Your task to perform on an android device: Go to accessibility settings Image 0: 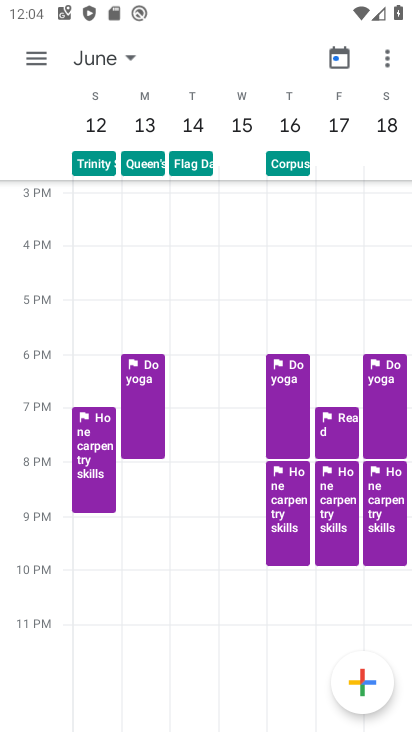
Step 0: press home button
Your task to perform on an android device: Go to accessibility settings Image 1: 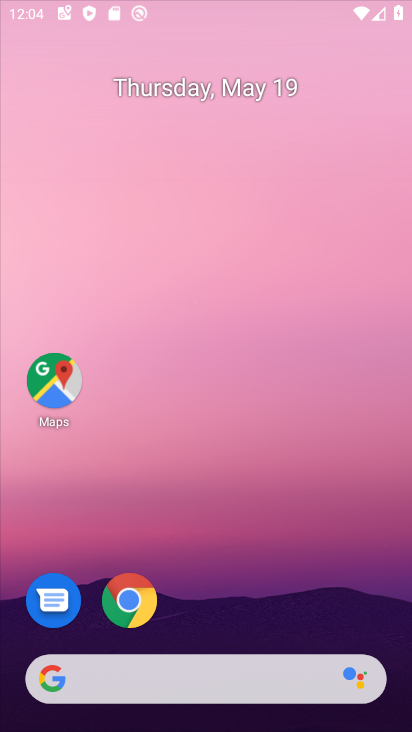
Step 1: drag from (294, 585) to (232, 54)
Your task to perform on an android device: Go to accessibility settings Image 2: 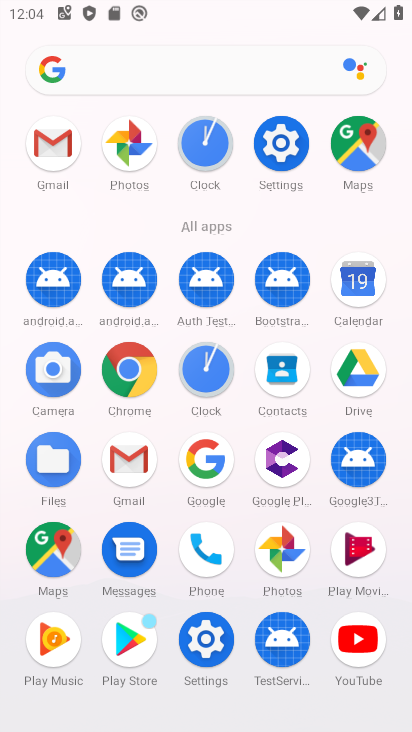
Step 2: click (294, 135)
Your task to perform on an android device: Go to accessibility settings Image 3: 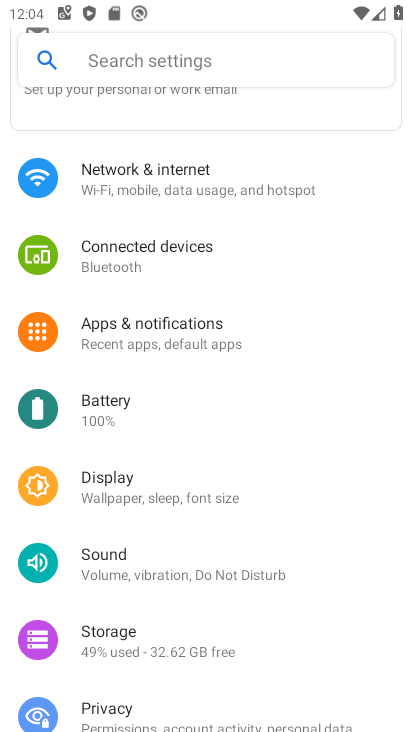
Step 3: drag from (192, 606) to (233, 88)
Your task to perform on an android device: Go to accessibility settings Image 4: 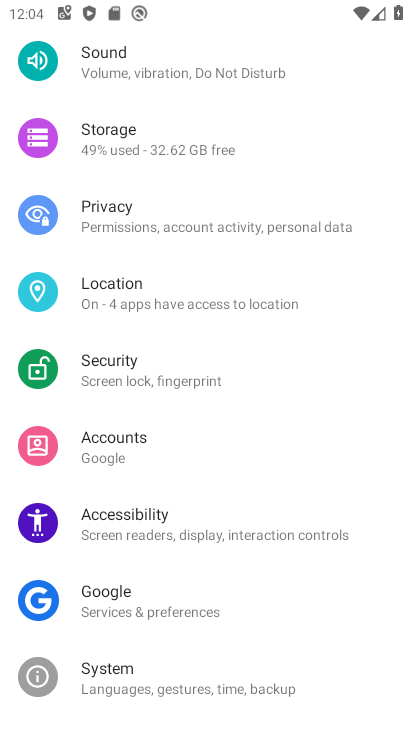
Step 4: click (163, 528)
Your task to perform on an android device: Go to accessibility settings Image 5: 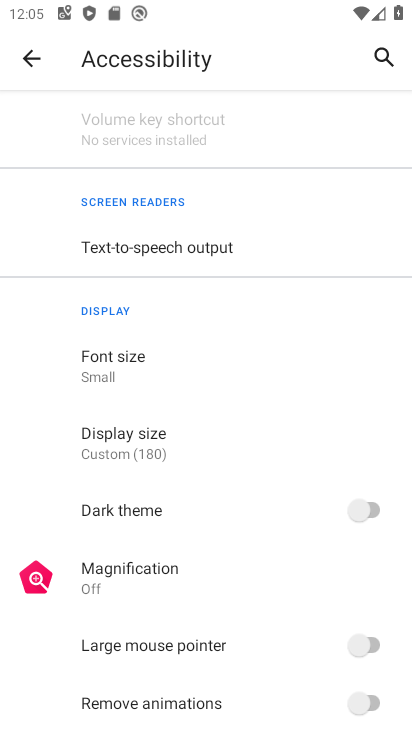
Step 5: task complete